Your task to perform on an android device: Go to eBay Image 0: 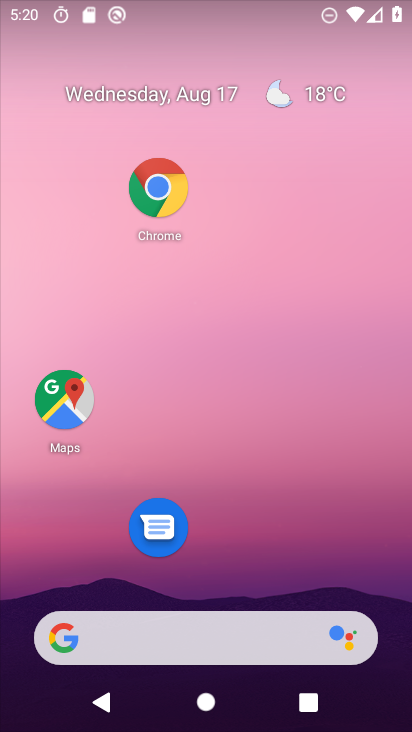
Step 0: click (162, 185)
Your task to perform on an android device: Go to eBay Image 1: 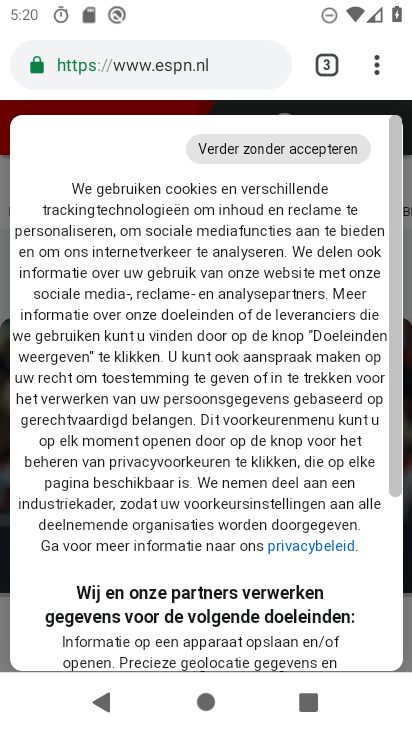
Step 1: click (334, 71)
Your task to perform on an android device: Go to eBay Image 2: 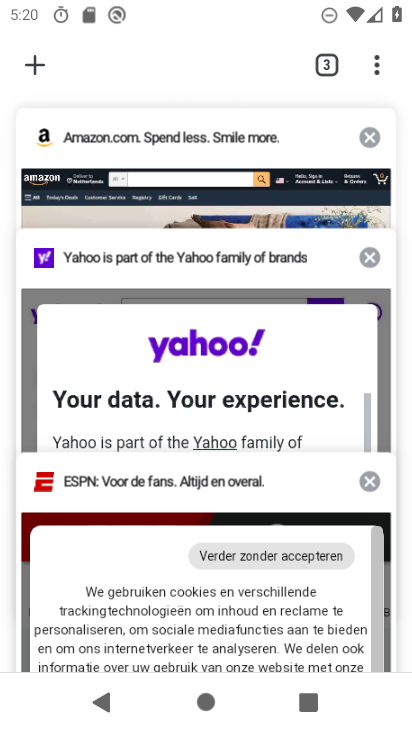
Step 2: click (29, 70)
Your task to perform on an android device: Go to eBay Image 3: 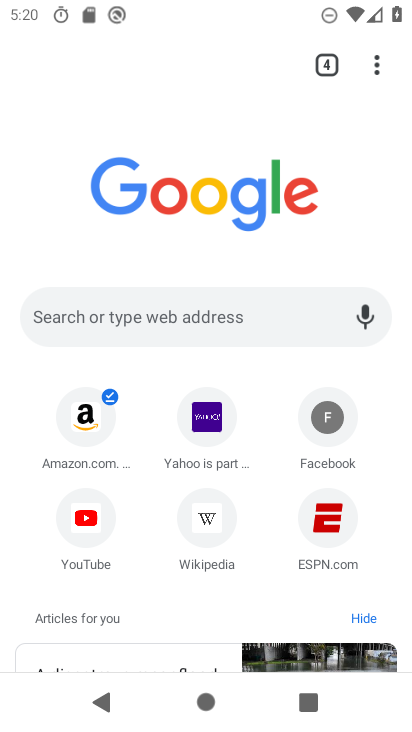
Step 3: click (176, 300)
Your task to perform on an android device: Go to eBay Image 4: 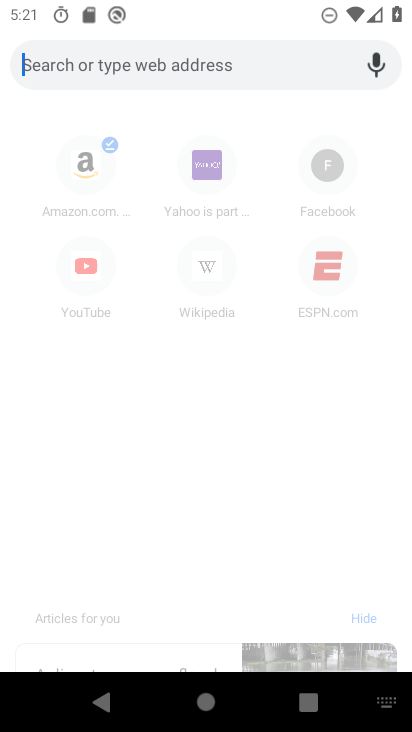
Step 4: type "ebay"
Your task to perform on an android device: Go to eBay Image 5: 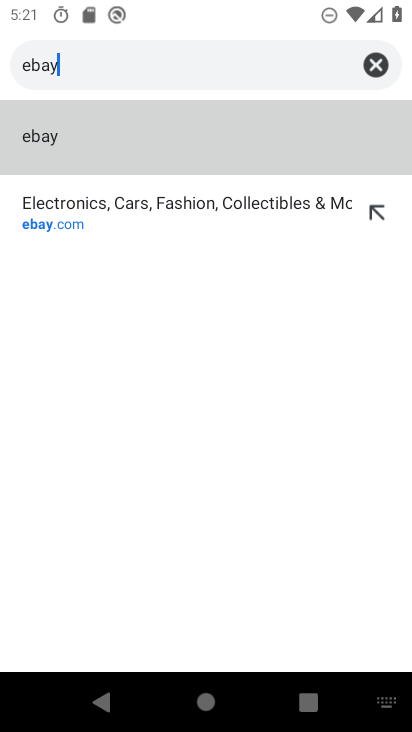
Step 5: click (183, 195)
Your task to perform on an android device: Go to eBay Image 6: 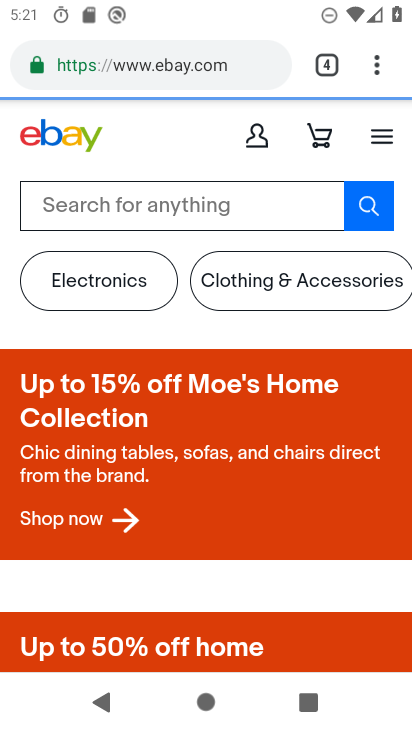
Step 6: task complete